Your task to perform on an android device: remove spam from my inbox in the gmail app Image 0: 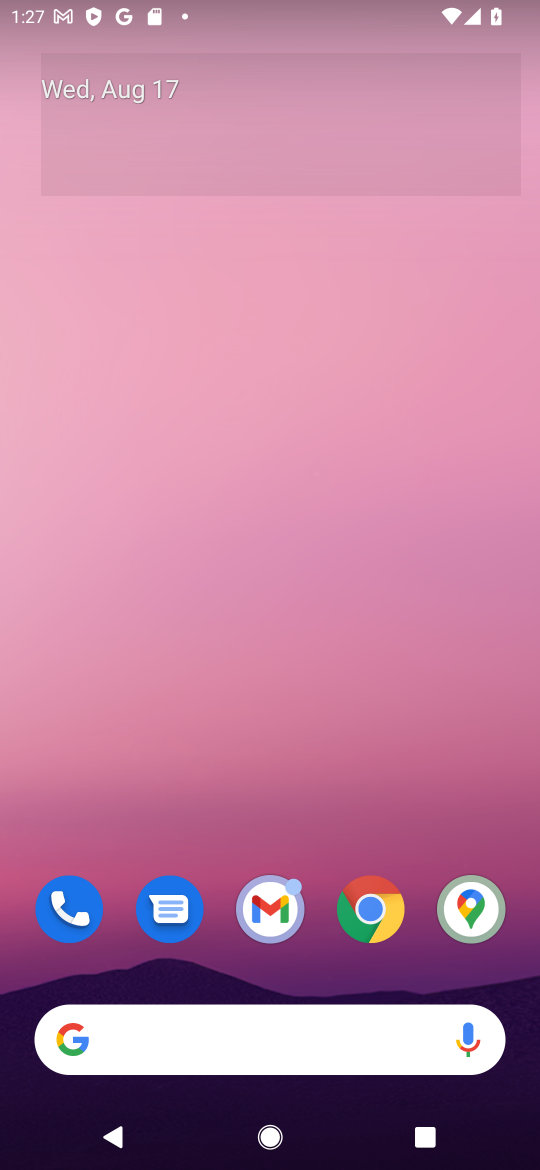
Step 0: click (271, 900)
Your task to perform on an android device: remove spam from my inbox in the gmail app Image 1: 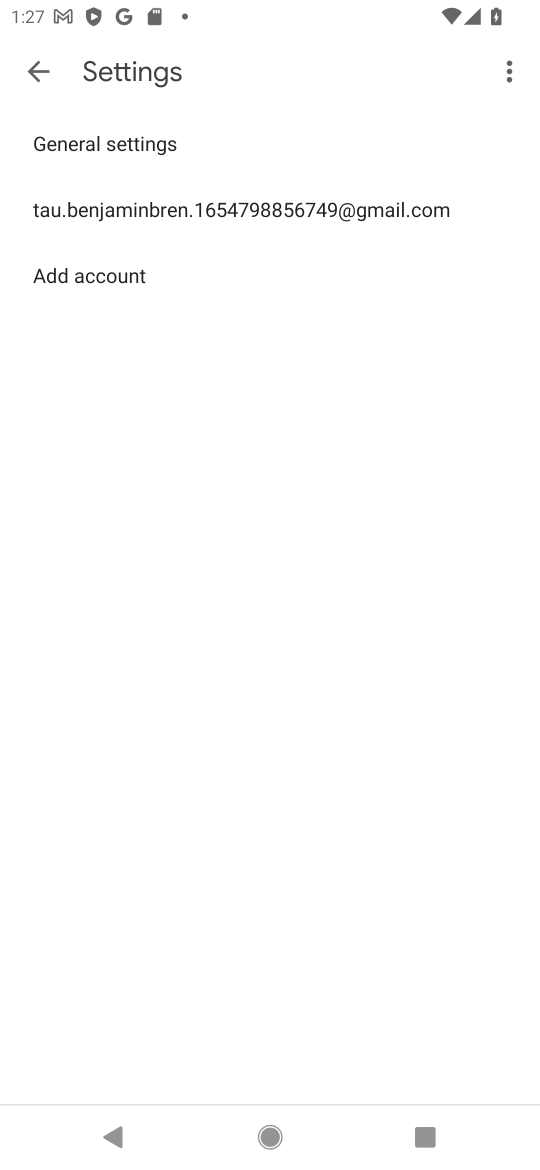
Step 1: task complete